Your task to perform on an android device: Open internet settings Image 0: 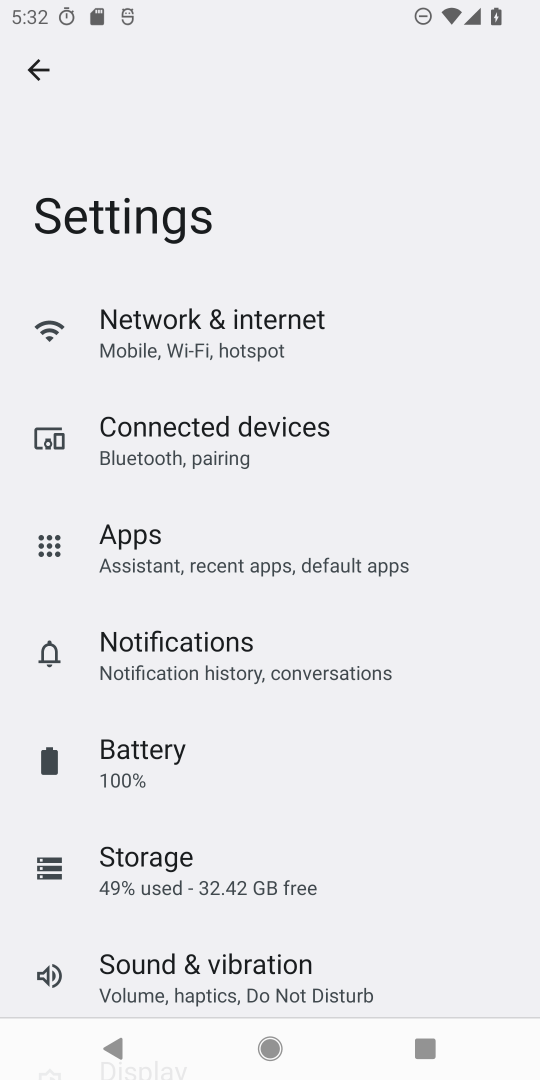
Step 0: click (263, 335)
Your task to perform on an android device: Open internet settings Image 1: 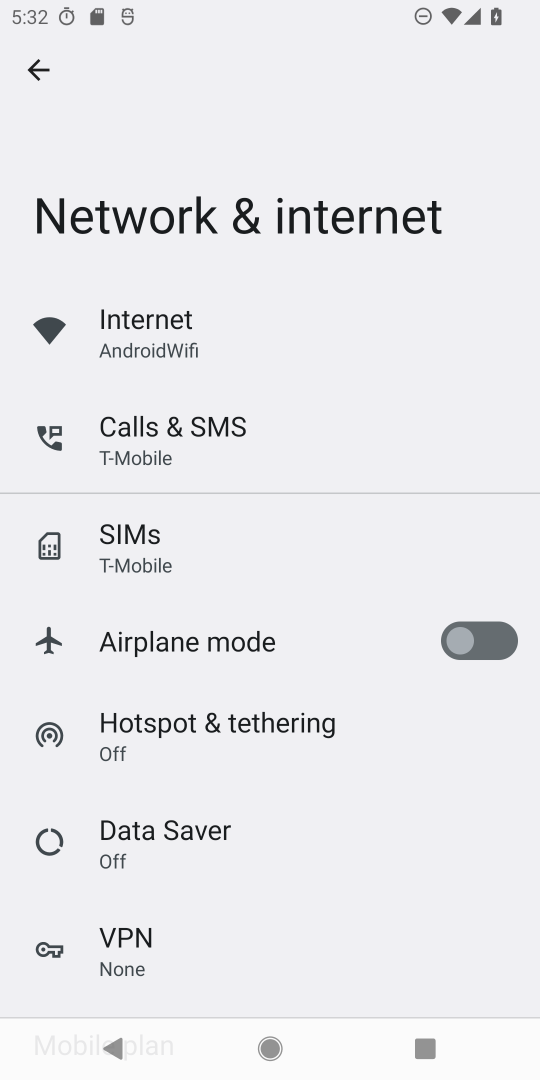
Step 1: click (166, 324)
Your task to perform on an android device: Open internet settings Image 2: 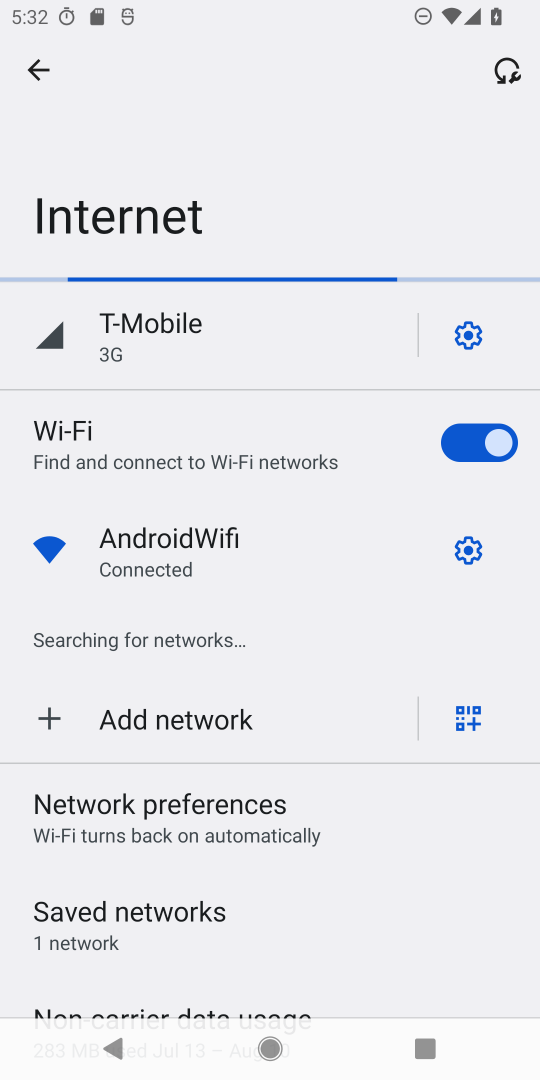
Step 2: task complete